Your task to perform on an android device: move a message to another label in the gmail app Image 0: 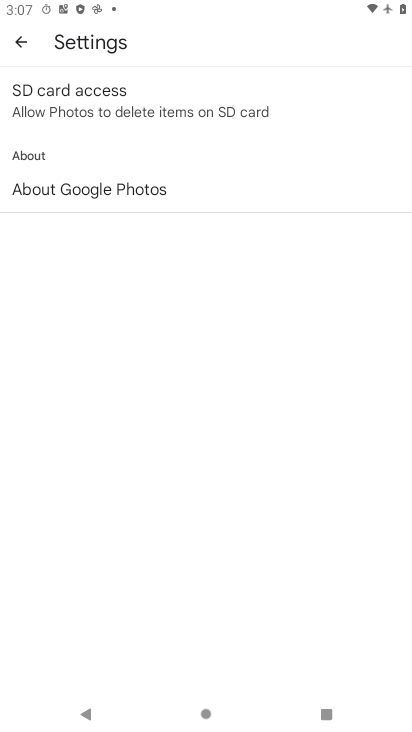
Step 0: press home button
Your task to perform on an android device: move a message to another label in the gmail app Image 1: 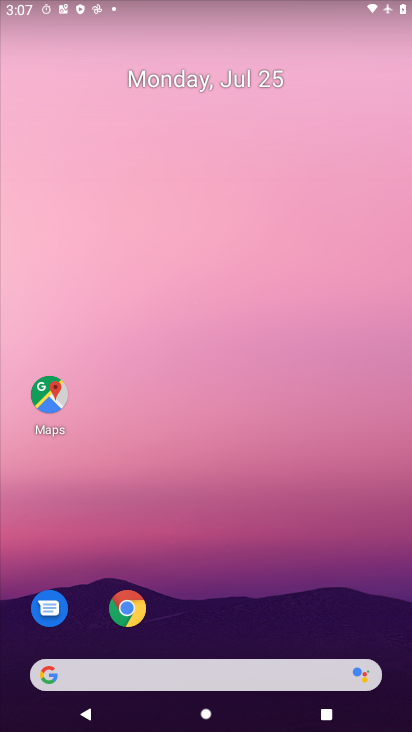
Step 1: drag from (250, 653) to (264, 72)
Your task to perform on an android device: move a message to another label in the gmail app Image 2: 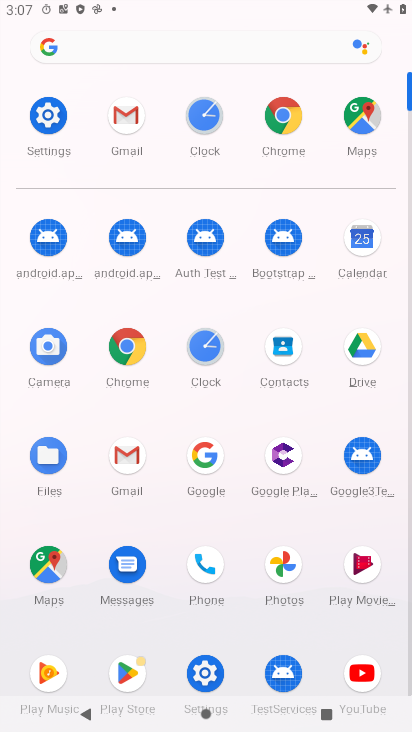
Step 2: click (141, 462)
Your task to perform on an android device: move a message to another label in the gmail app Image 3: 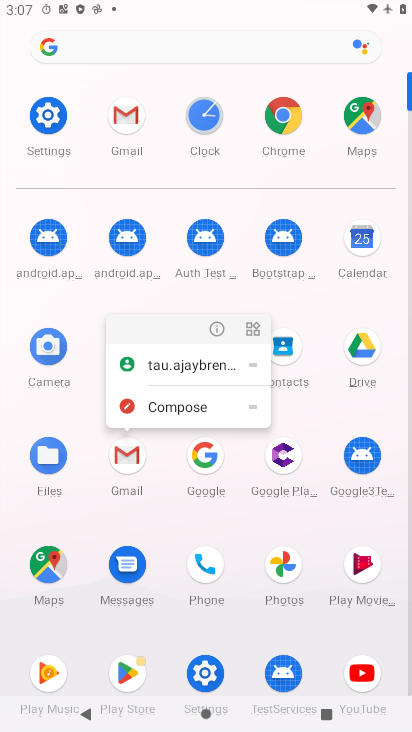
Step 3: click (137, 471)
Your task to perform on an android device: move a message to another label in the gmail app Image 4: 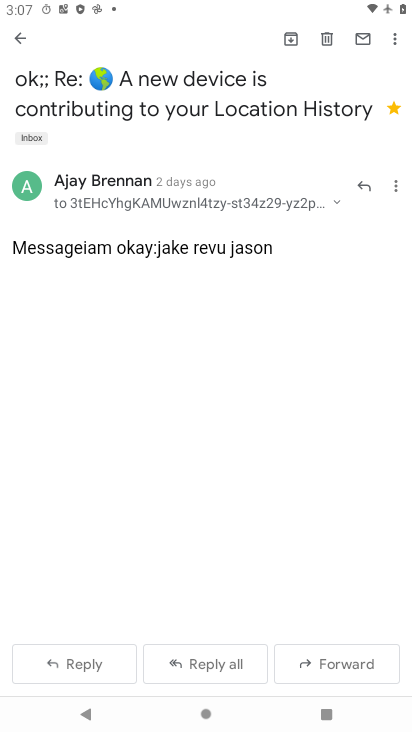
Step 4: click (400, 48)
Your task to perform on an android device: move a message to another label in the gmail app Image 5: 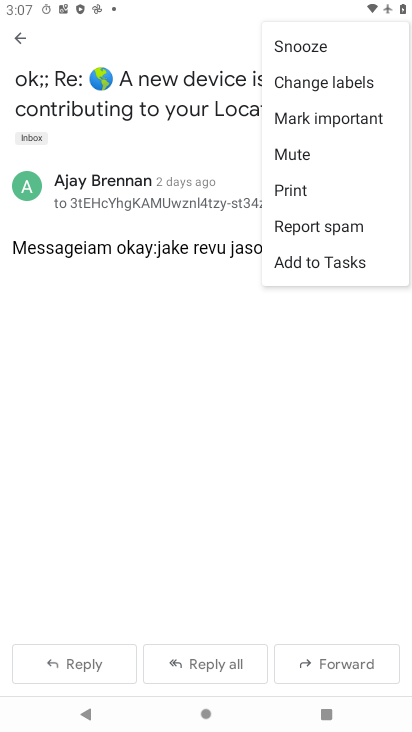
Step 5: click (382, 85)
Your task to perform on an android device: move a message to another label in the gmail app Image 6: 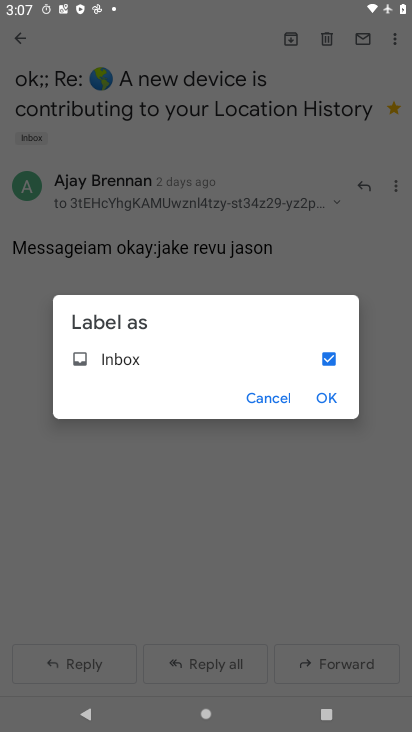
Step 6: click (328, 350)
Your task to perform on an android device: move a message to another label in the gmail app Image 7: 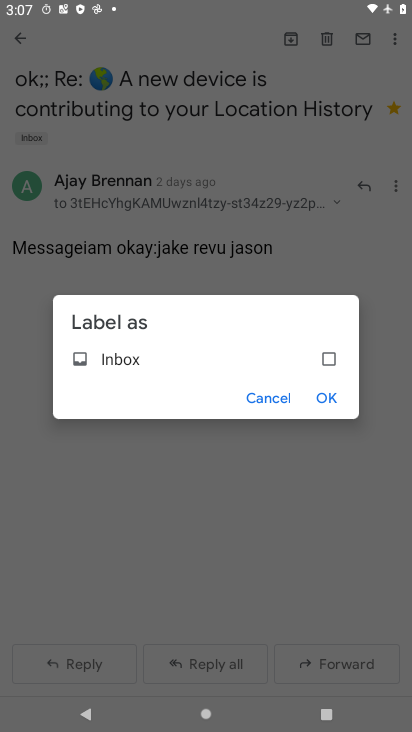
Step 7: click (331, 403)
Your task to perform on an android device: move a message to another label in the gmail app Image 8: 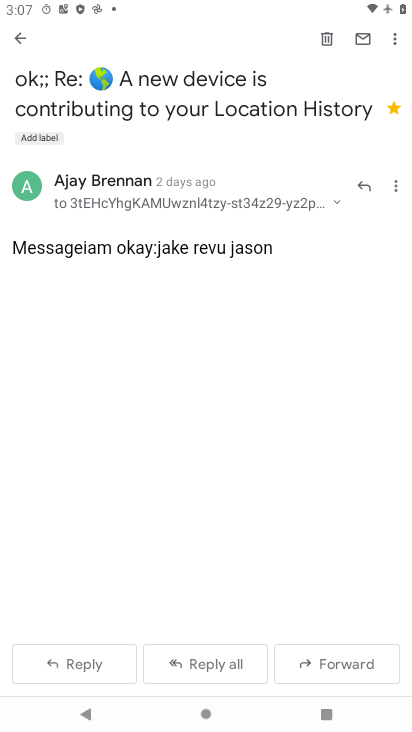
Step 8: task complete